Your task to perform on an android device: Is it going to rain tomorrow? Image 0: 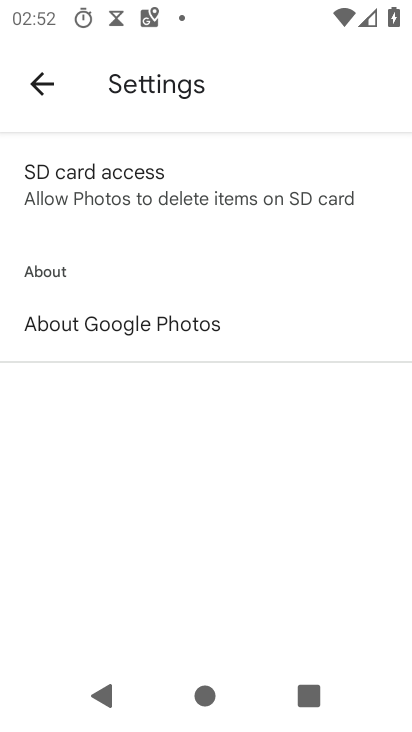
Step 0: press home button
Your task to perform on an android device: Is it going to rain tomorrow? Image 1: 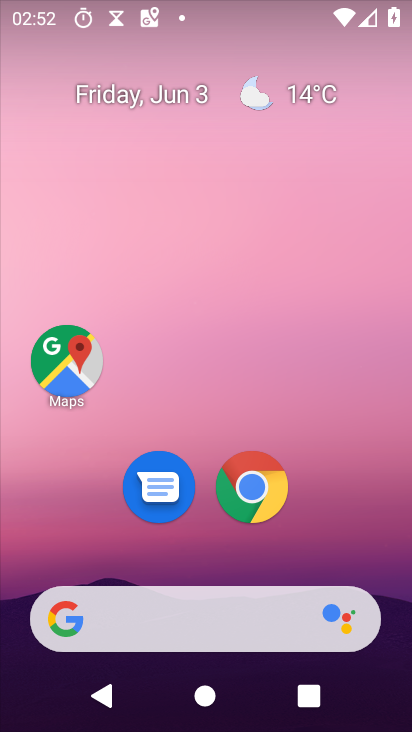
Step 1: click (296, 96)
Your task to perform on an android device: Is it going to rain tomorrow? Image 2: 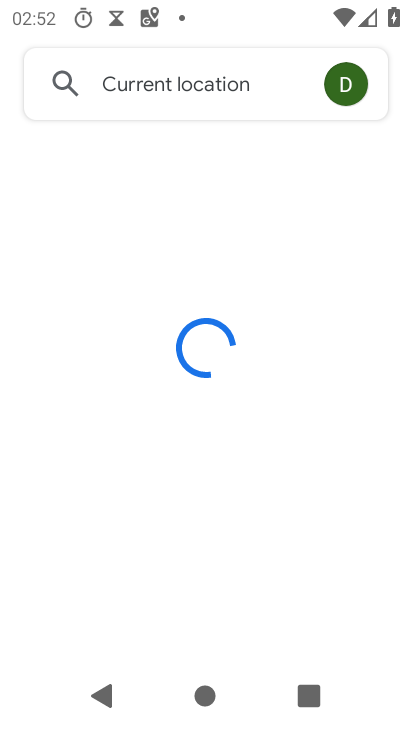
Step 2: click (222, 167)
Your task to perform on an android device: Is it going to rain tomorrow? Image 3: 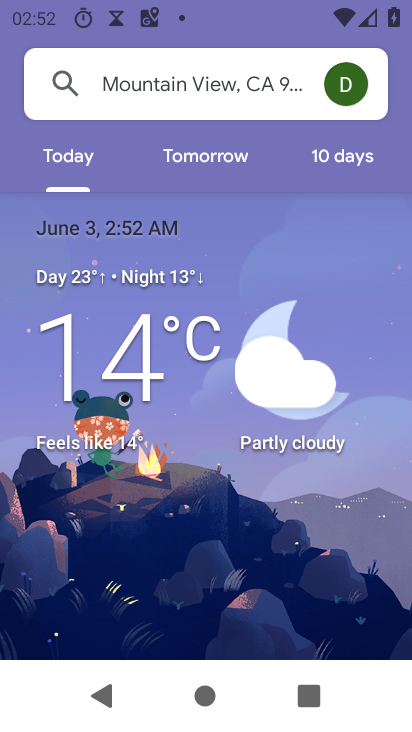
Step 3: click (175, 162)
Your task to perform on an android device: Is it going to rain tomorrow? Image 4: 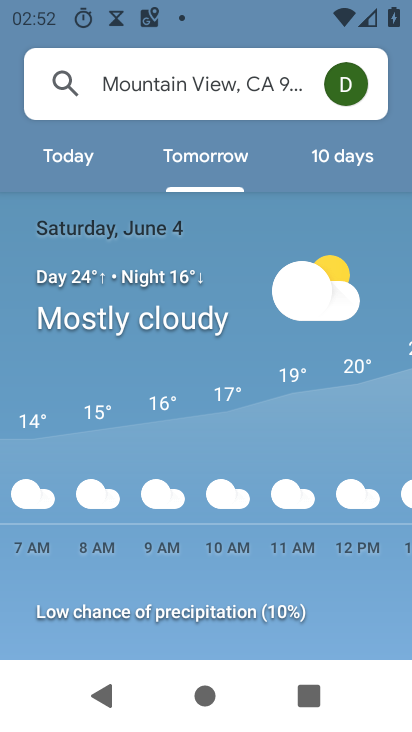
Step 4: task complete